Your task to perform on an android device: turn off improve location accuracy Image 0: 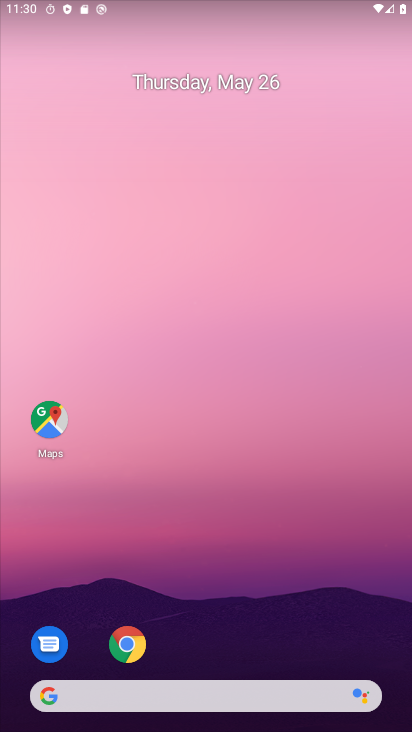
Step 0: drag from (297, 566) to (224, 79)
Your task to perform on an android device: turn off improve location accuracy Image 1: 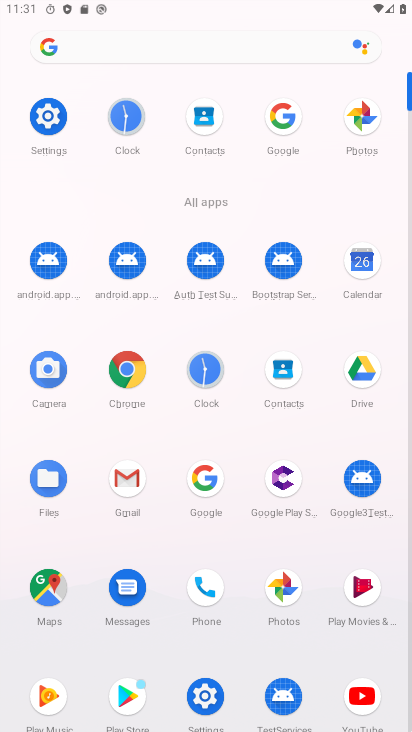
Step 1: click (211, 687)
Your task to perform on an android device: turn off improve location accuracy Image 2: 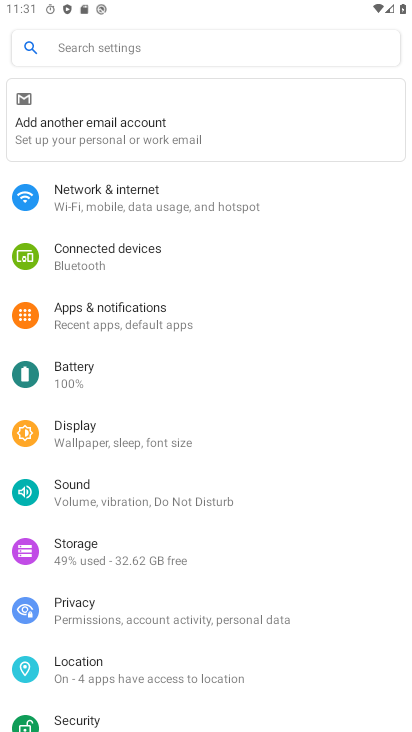
Step 2: click (160, 658)
Your task to perform on an android device: turn off improve location accuracy Image 3: 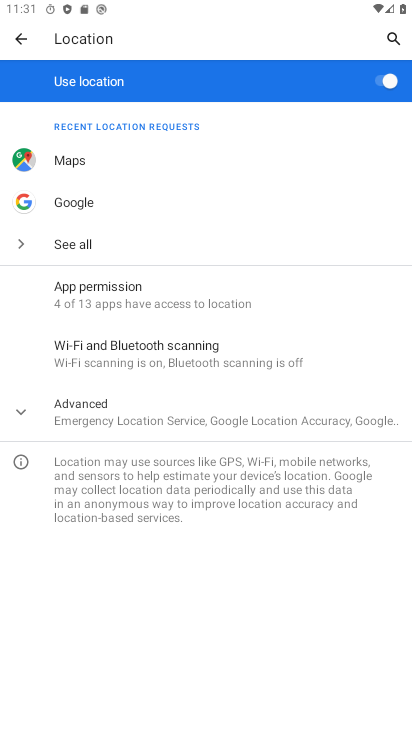
Step 3: click (150, 405)
Your task to perform on an android device: turn off improve location accuracy Image 4: 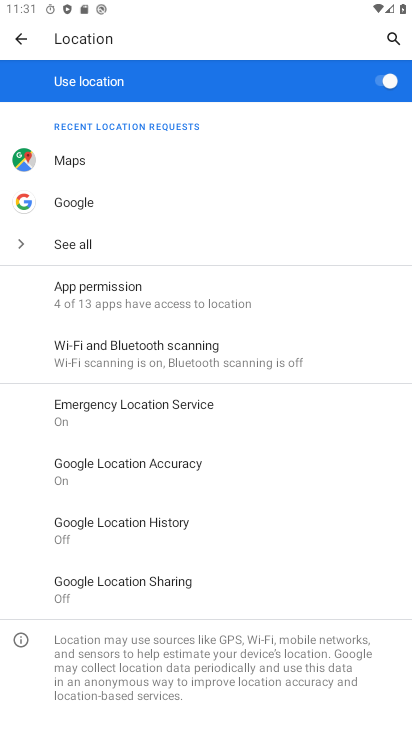
Step 4: click (185, 463)
Your task to perform on an android device: turn off improve location accuracy Image 5: 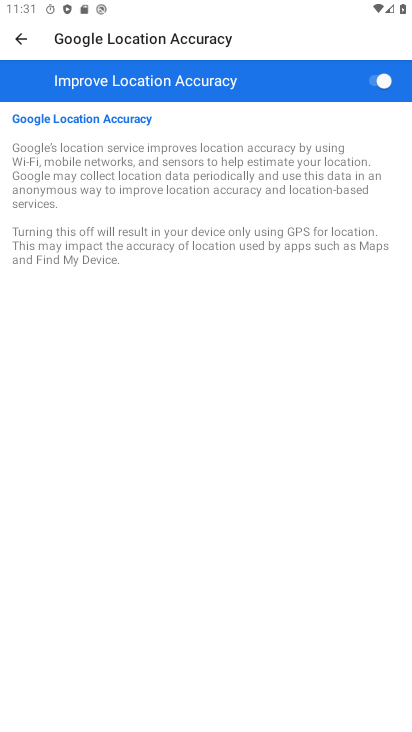
Step 5: click (386, 79)
Your task to perform on an android device: turn off improve location accuracy Image 6: 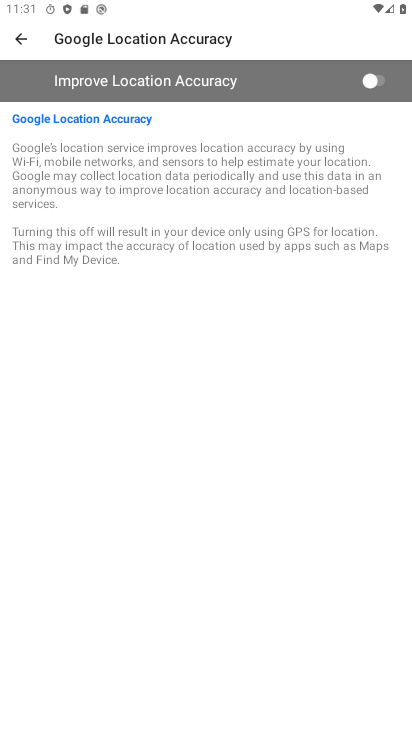
Step 6: task complete